Your task to perform on an android device: Go to Google maps Image 0: 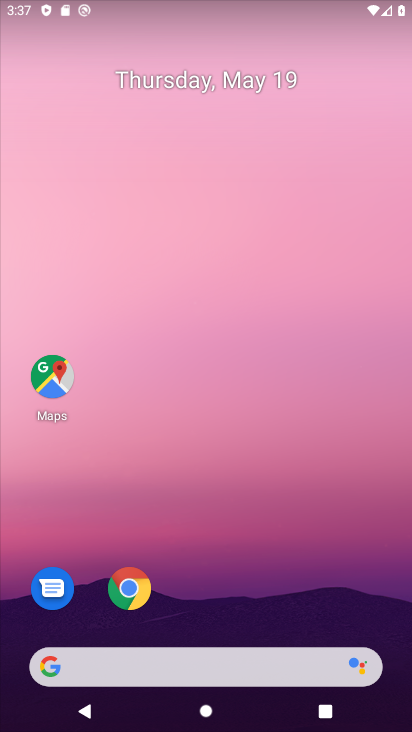
Step 0: click (64, 369)
Your task to perform on an android device: Go to Google maps Image 1: 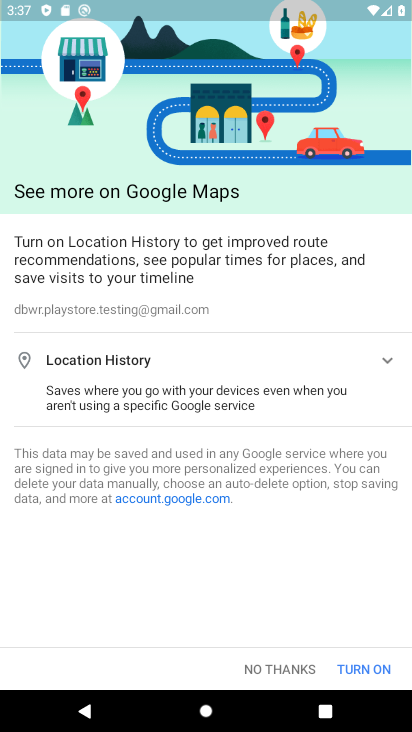
Step 1: click (288, 663)
Your task to perform on an android device: Go to Google maps Image 2: 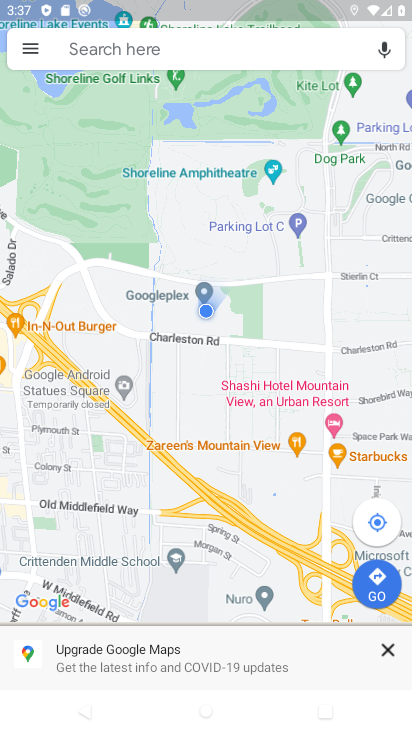
Step 2: task complete